Your task to perform on an android device: Open Maps and search for coffee Image 0: 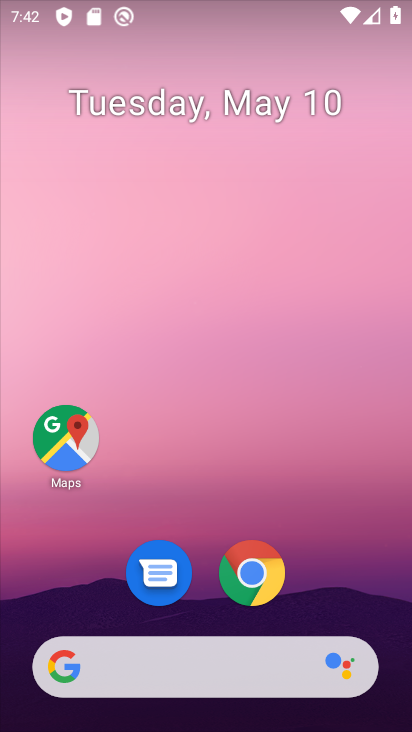
Step 0: drag from (326, 570) to (376, 57)
Your task to perform on an android device: Open Maps and search for coffee Image 1: 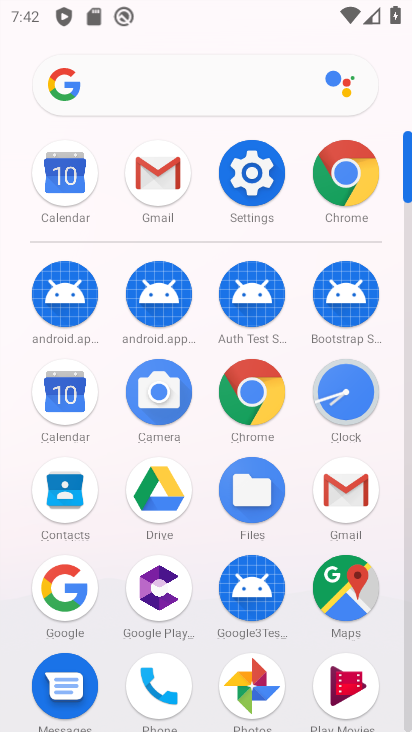
Step 1: click (348, 579)
Your task to perform on an android device: Open Maps and search for coffee Image 2: 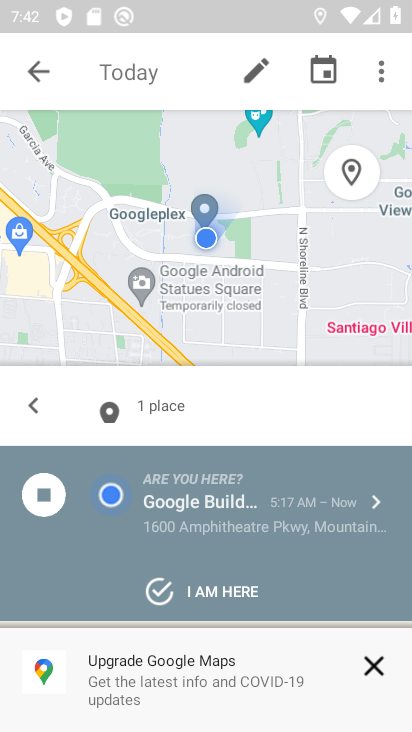
Step 2: click (164, 72)
Your task to perform on an android device: Open Maps and search for coffee Image 3: 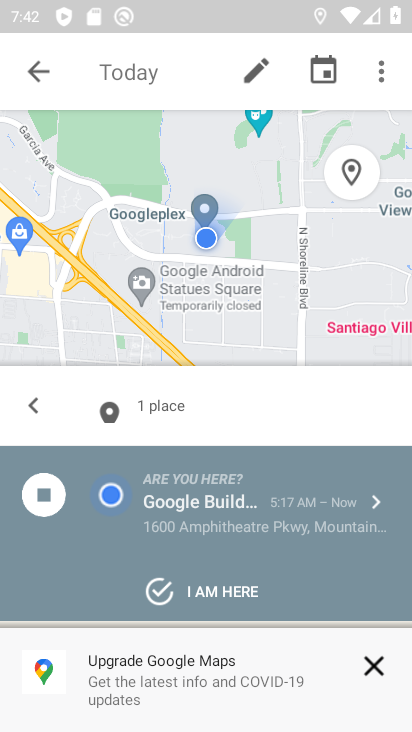
Step 3: click (40, 78)
Your task to perform on an android device: Open Maps and search for coffee Image 4: 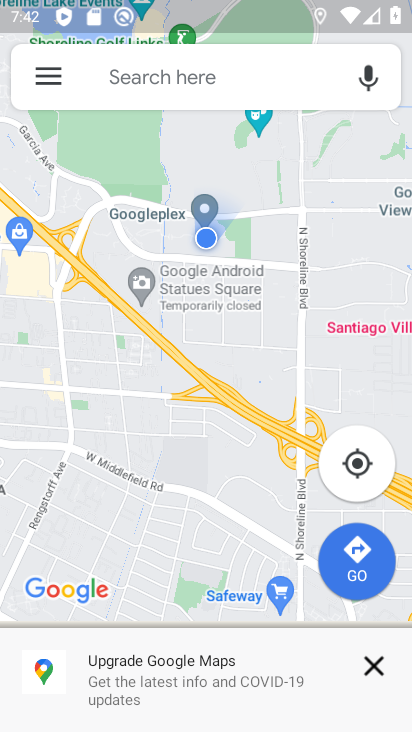
Step 4: click (177, 85)
Your task to perform on an android device: Open Maps and search for coffee Image 5: 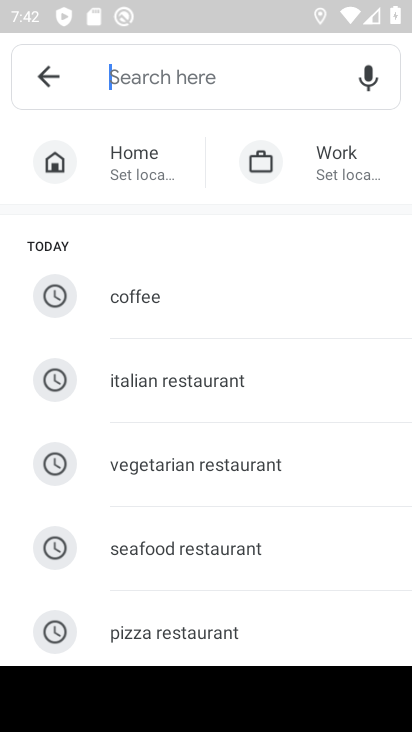
Step 5: type "coffee"
Your task to perform on an android device: Open Maps and search for coffee Image 6: 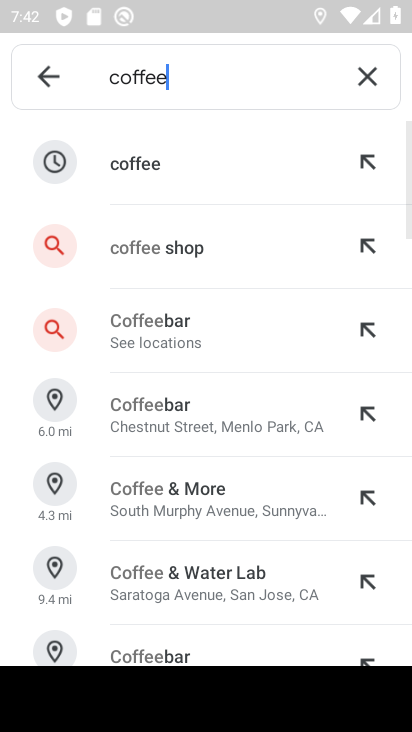
Step 6: click (181, 187)
Your task to perform on an android device: Open Maps and search for coffee Image 7: 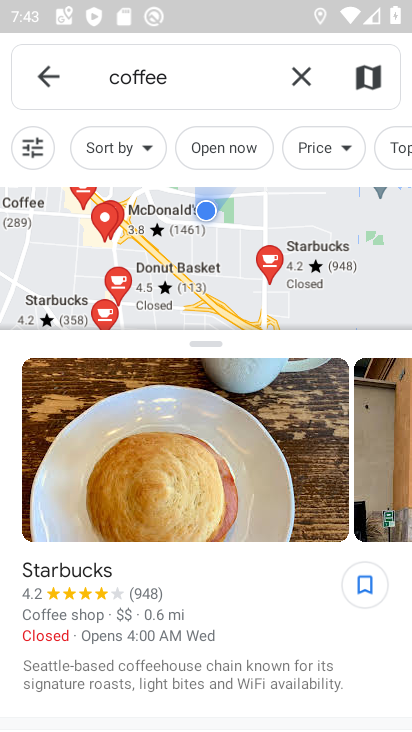
Step 7: task complete